Your task to perform on an android device: Show me popular videos on Youtube Image 0: 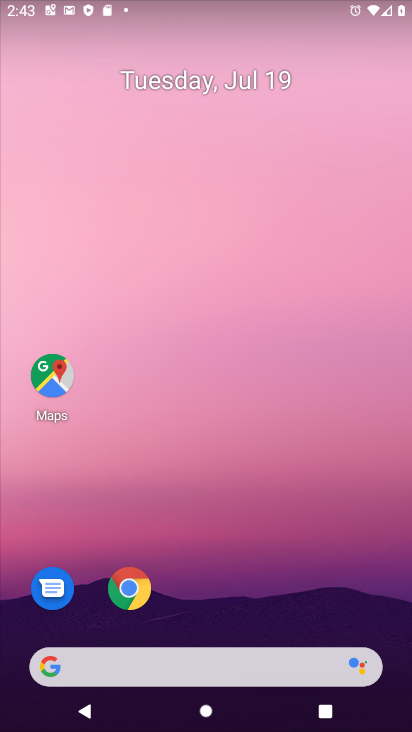
Step 0: drag from (343, 621) to (179, 14)
Your task to perform on an android device: Show me popular videos on Youtube Image 1: 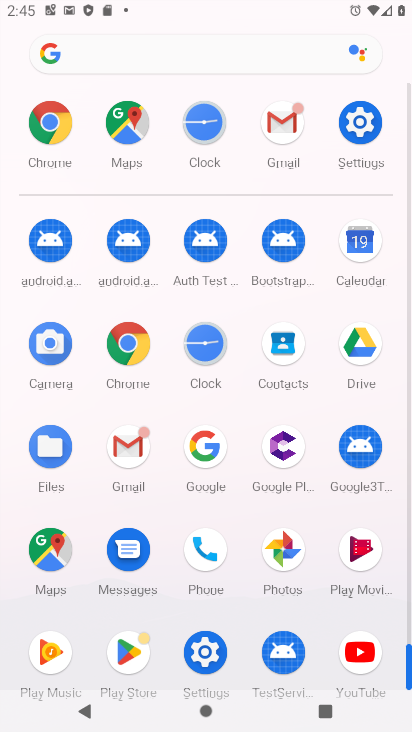
Step 1: click (348, 643)
Your task to perform on an android device: Show me popular videos on Youtube Image 2: 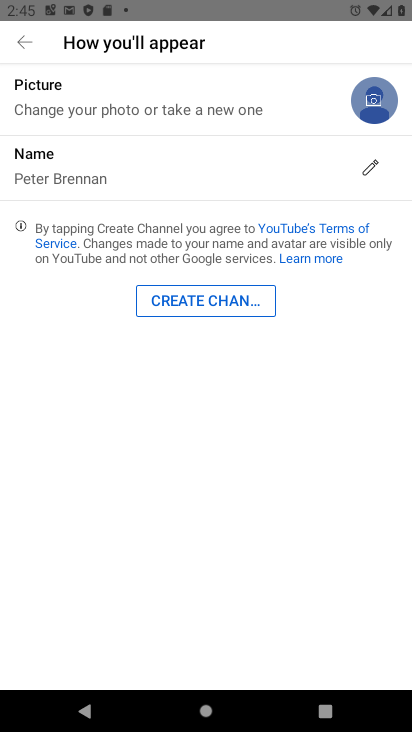
Step 2: task complete